Your task to perform on an android device: change keyboard looks Image 0: 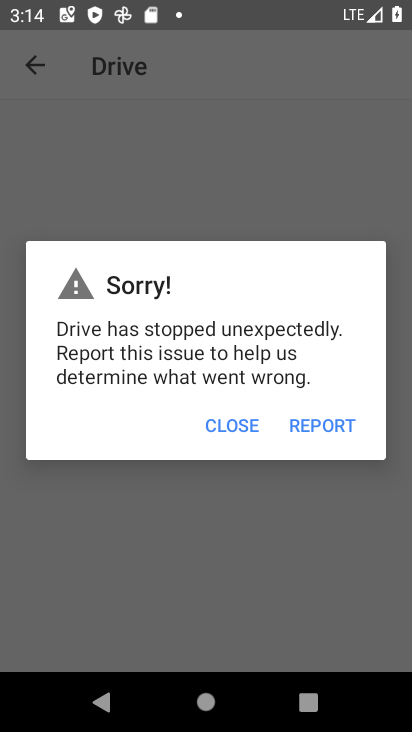
Step 0: press home button
Your task to perform on an android device: change keyboard looks Image 1: 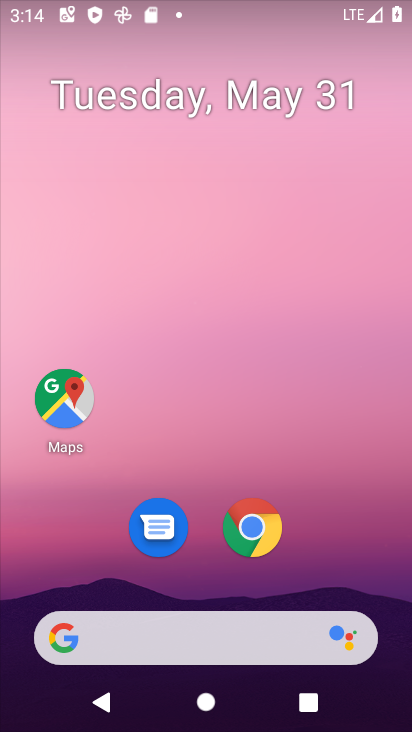
Step 1: drag from (356, 461) to (330, 114)
Your task to perform on an android device: change keyboard looks Image 2: 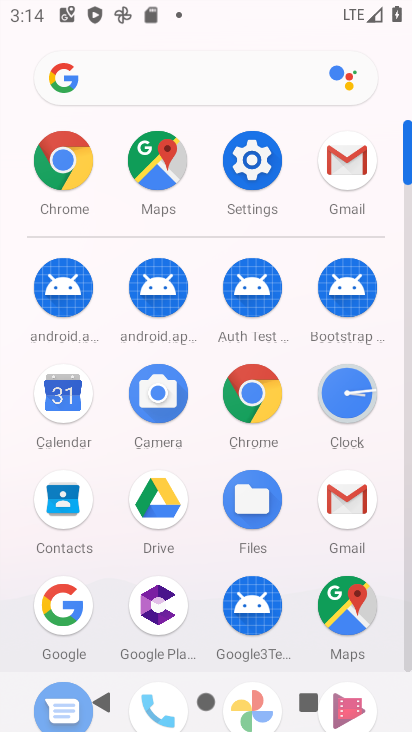
Step 2: click (257, 176)
Your task to perform on an android device: change keyboard looks Image 3: 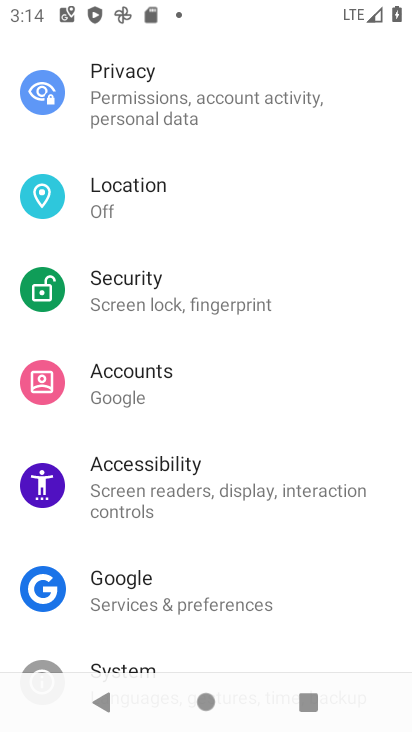
Step 3: drag from (283, 619) to (213, 155)
Your task to perform on an android device: change keyboard looks Image 4: 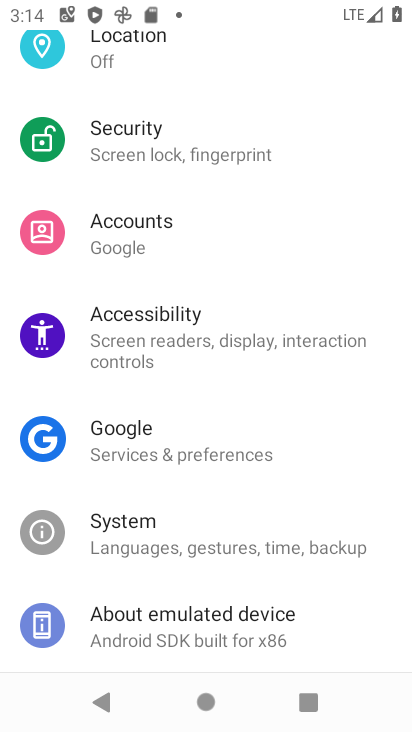
Step 4: drag from (287, 573) to (289, 273)
Your task to perform on an android device: change keyboard looks Image 5: 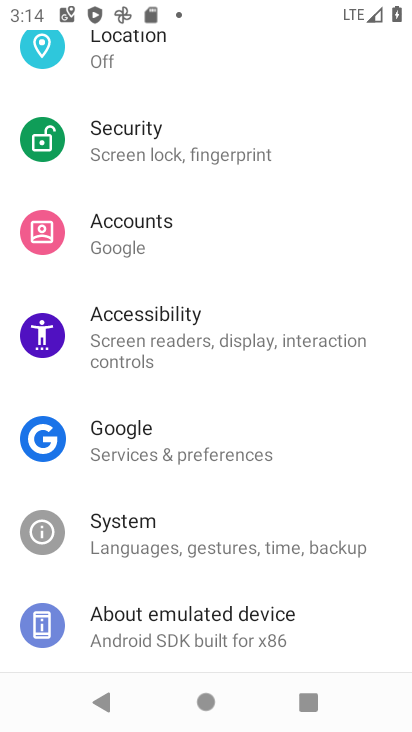
Step 5: click (167, 543)
Your task to perform on an android device: change keyboard looks Image 6: 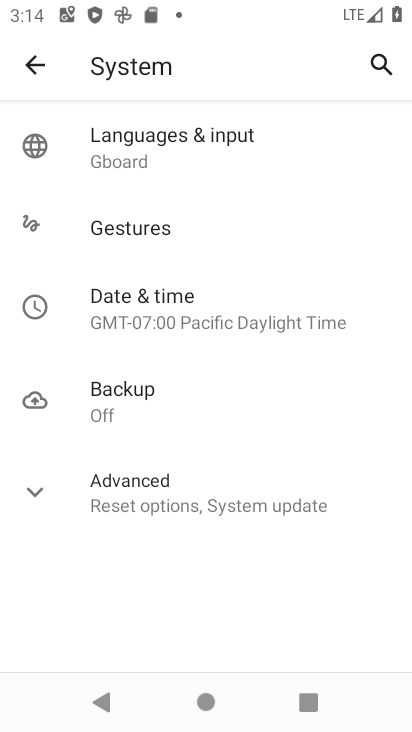
Step 6: click (139, 153)
Your task to perform on an android device: change keyboard looks Image 7: 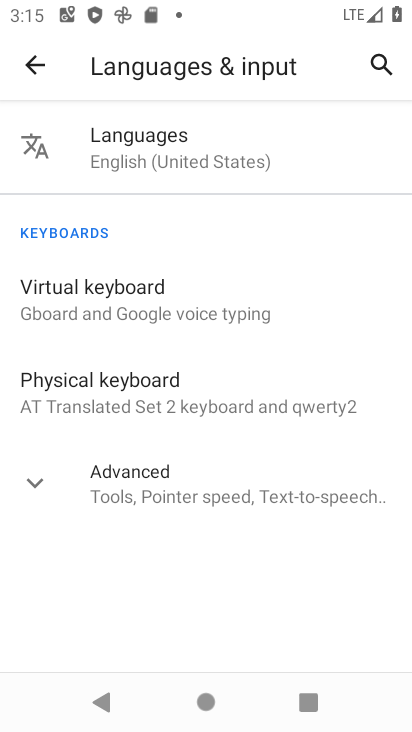
Step 7: click (155, 291)
Your task to perform on an android device: change keyboard looks Image 8: 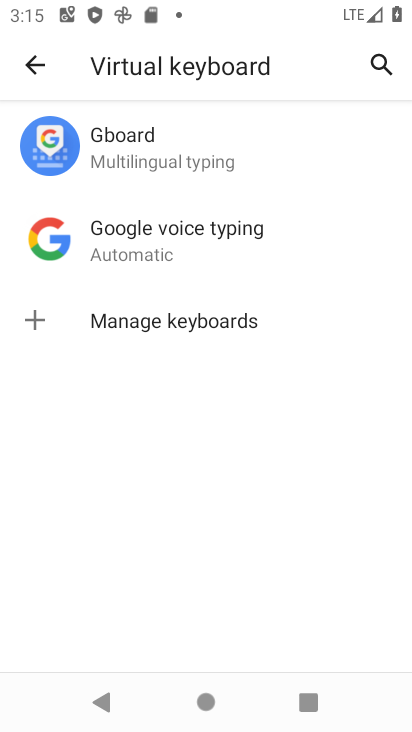
Step 8: click (163, 146)
Your task to perform on an android device: change keyboard looks Image 9: 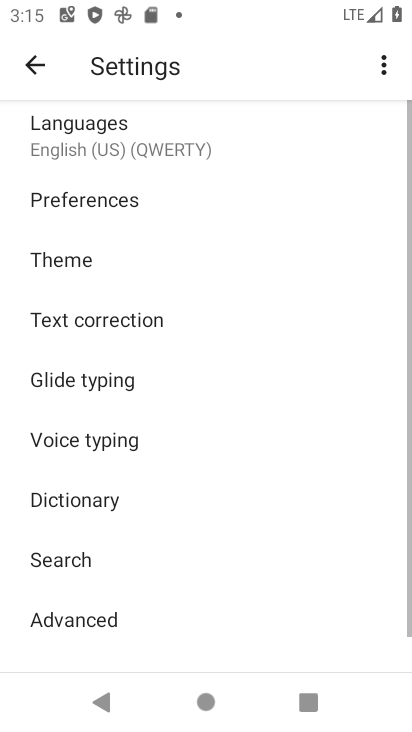
Step 9: click (66, 261)
Your task to perform on an android device: change keyboard looks Image 10: 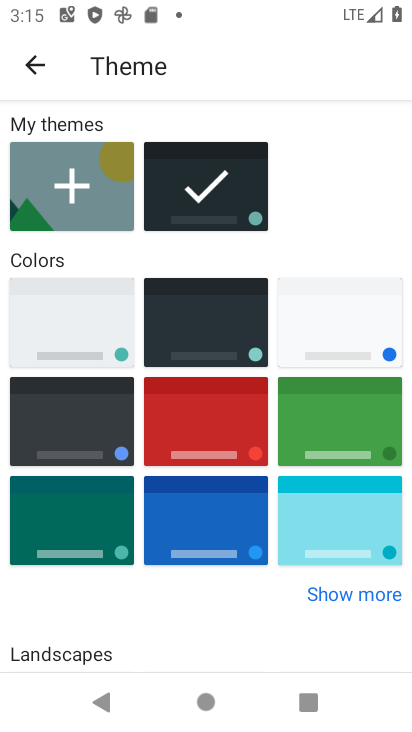
Step 10: click (182, 328)
Your task to perform on an android device: change keyboard looks Image 11: 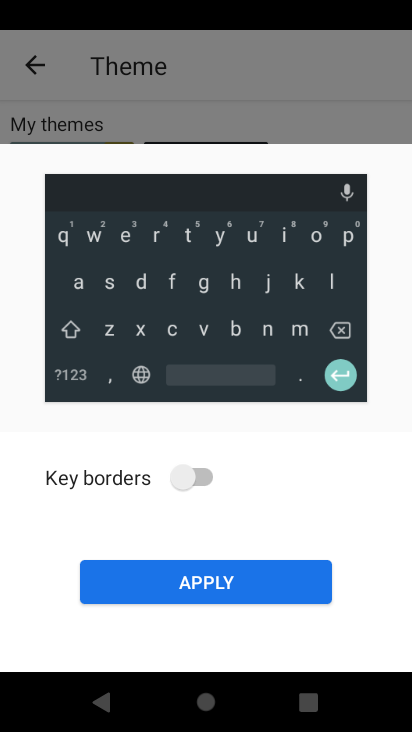
Step 11: click (208, 582)
Your task to perform on an android device: change keyboard looks Image 12: 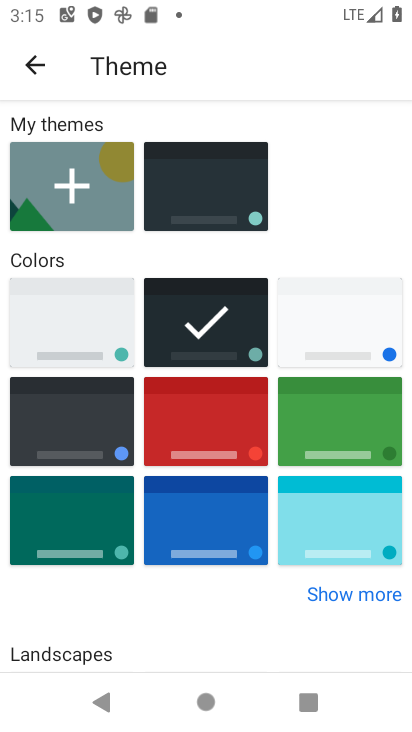
Step 12: task complete